Your task to perform on an android device: Clear the shopping cart on ebay.com. Search for "alienware aurora" on ebay.com, select the first entry, and add it to the cart. Image 0: 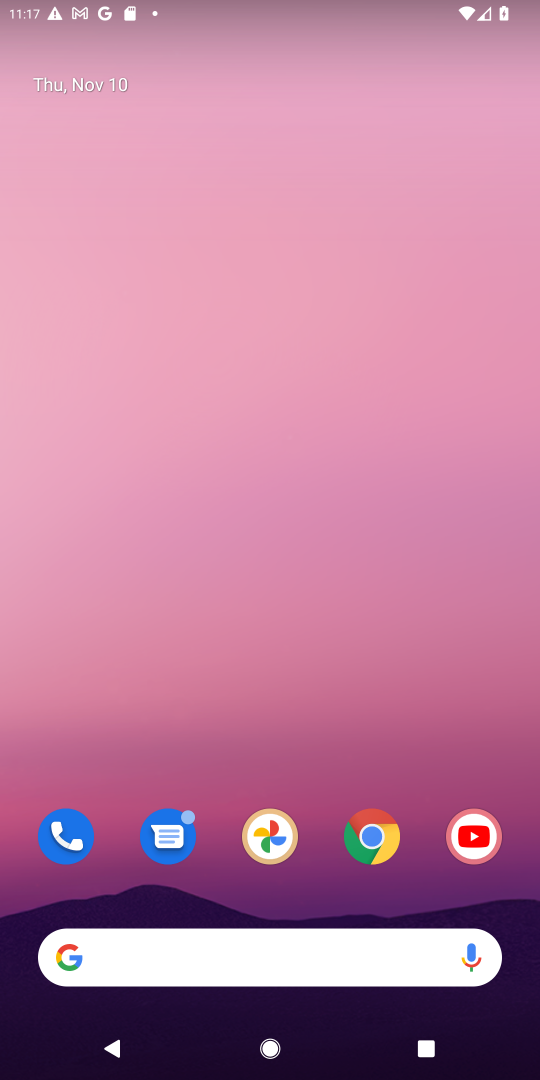
Step 0: click (183, 942)
Your task to perform on an android device: Clear the shopping cart on ebay.com. Search for "alienware aurora" on ebay.com, select the first entry, and add it to the cart. Image 1: 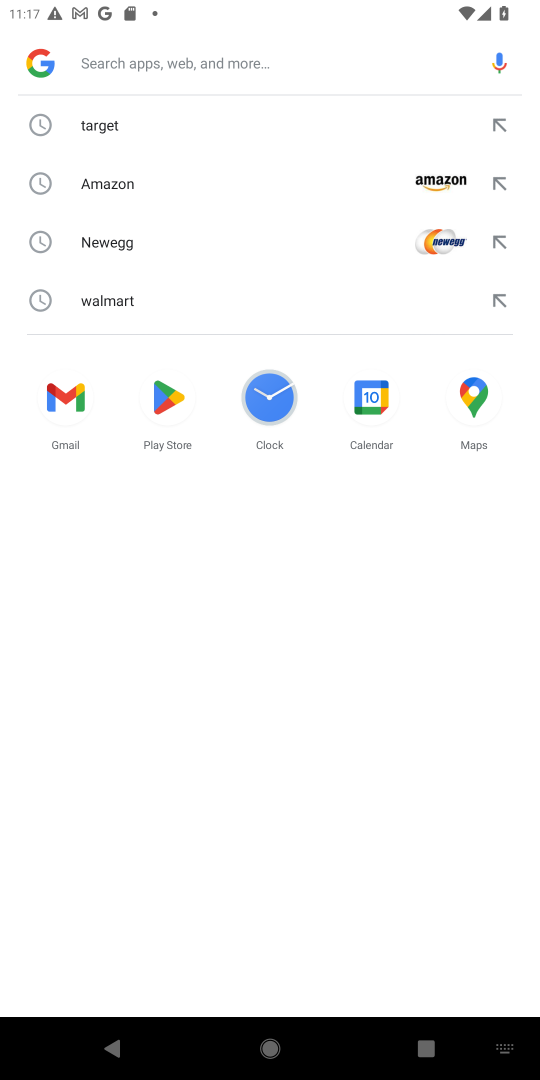
Step 1: type "ebay.com"
Your task to perform on an android device: Clear the shopping cart on ebay.com. Search for "alienware aurora" on ebay.com, select the first entry, and add it to the cart. Image 2: 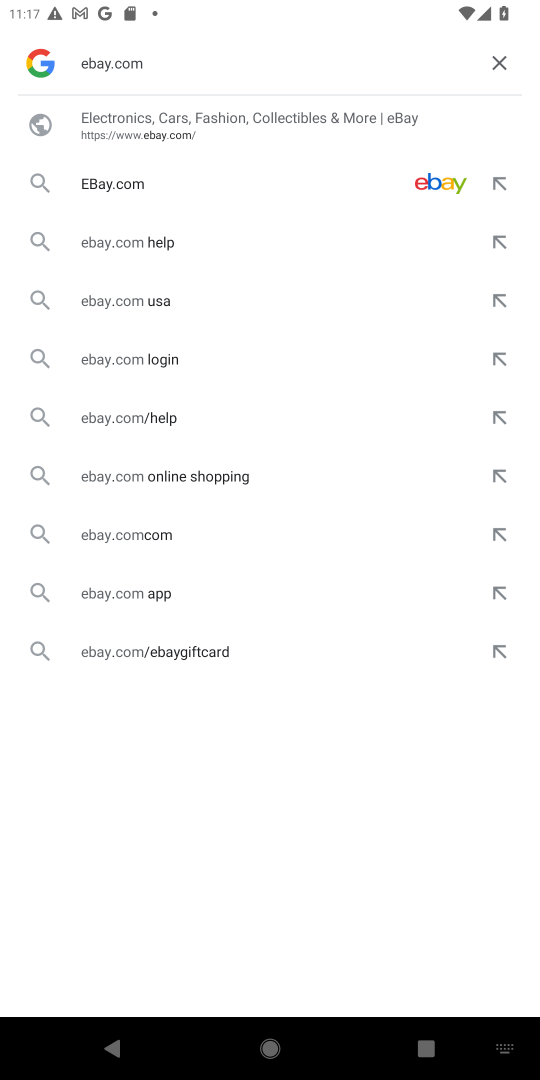
Step 2: click (109, 182)
Your task to perform on an android device: Clear the shopping cart on ebay.com. Search for "alienware aurora" on ebay.com, select the first entry, and add it to the cart. Image 3: 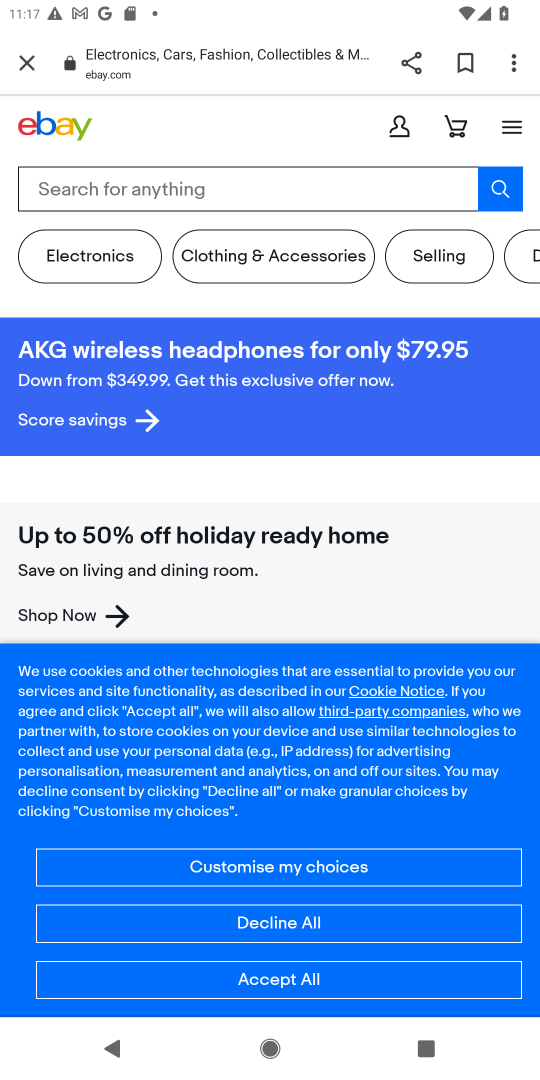
Step 3: click (162, 186)
Your task to perform on an android device: Clear the shopping cart on ebay.com. Search for "alienware aurora" on ebay.com, select the first entry, and add it to the cart. Image 4: 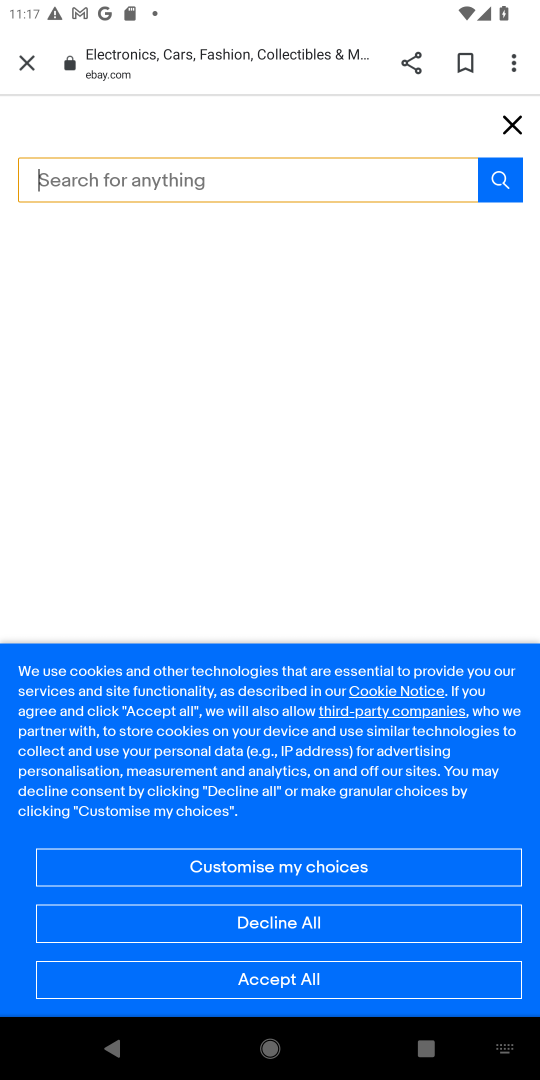
Step 4: type "alienware aurora"
Your task to perform on an android device: Clear the shopping cart on ebay.com. Search for "alienware aurora" on ebay.com, select the first entry, and add it to the cart. Image 5: 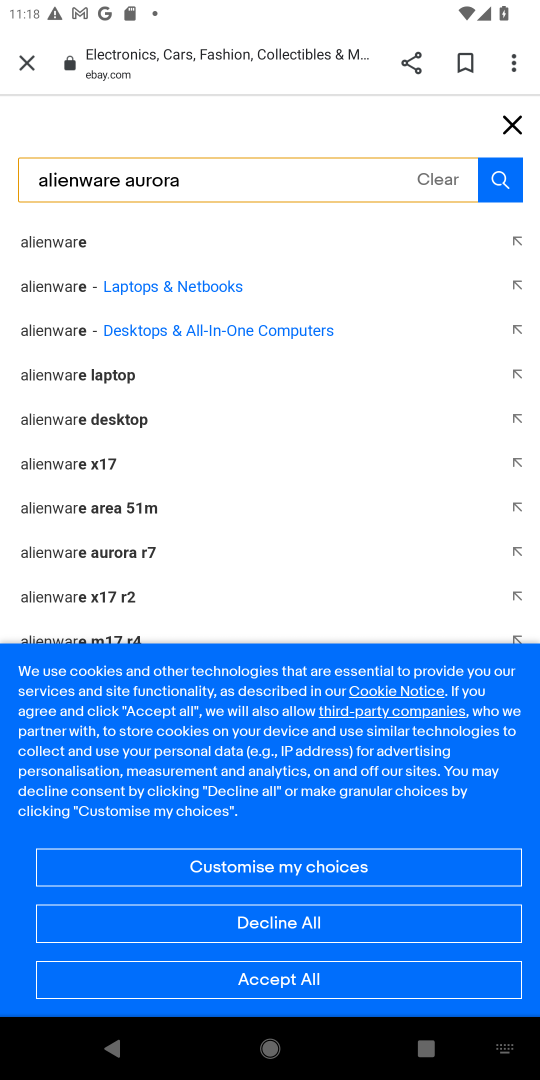
Step 5: click (62, 237)
Your task to perform on an android device: Clear the shopping cart on ebay.com. Search for "alienware aurora" on ebay.com, select the first entry, and add it to the cart. Image 6: 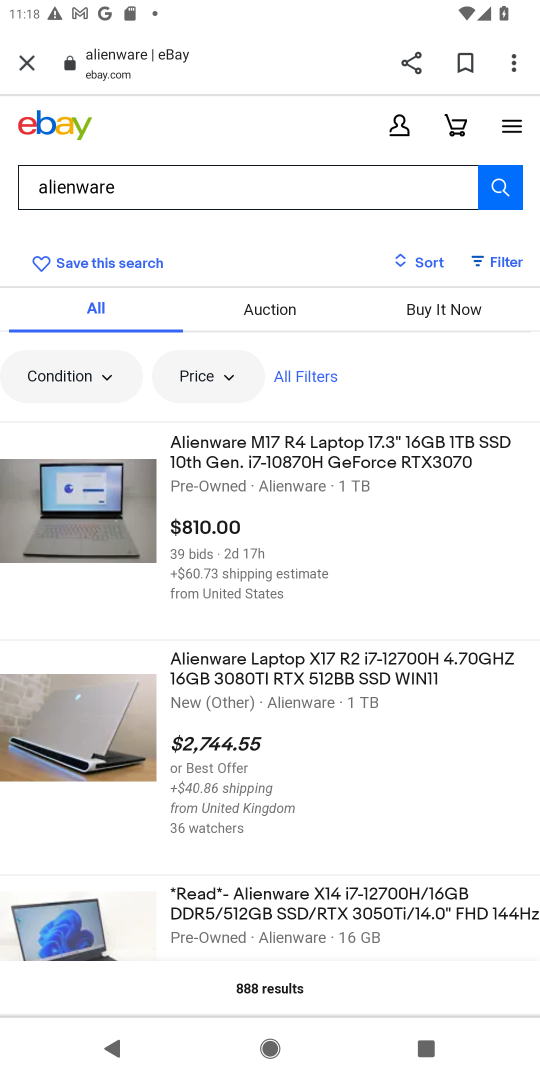
Step 6: click (245, 452)
Your task to perform on an android device: Clear the shopping cart on ebay.com. Search for "alienware aurora" on ebay.com, select the first entry, and add it to the cart. Image 7: 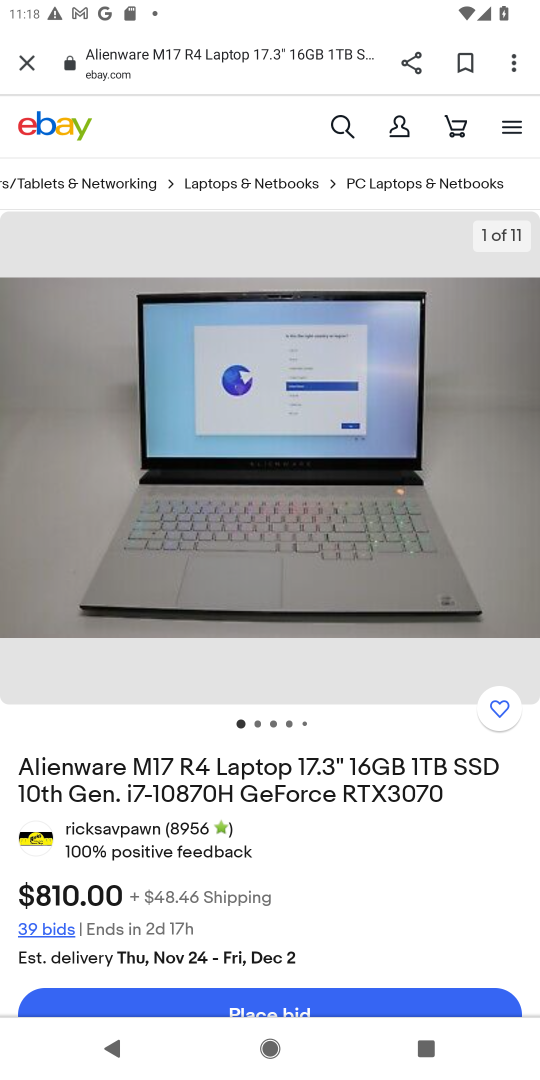
Step 7: drag from (281, 849) to (244, 562)
Your task to perform on an android device: Clear the shopping cart on ebay.com. Search for "alienware aurora" on ebay.com, select the first entry, and add it to the cart. Image 8: 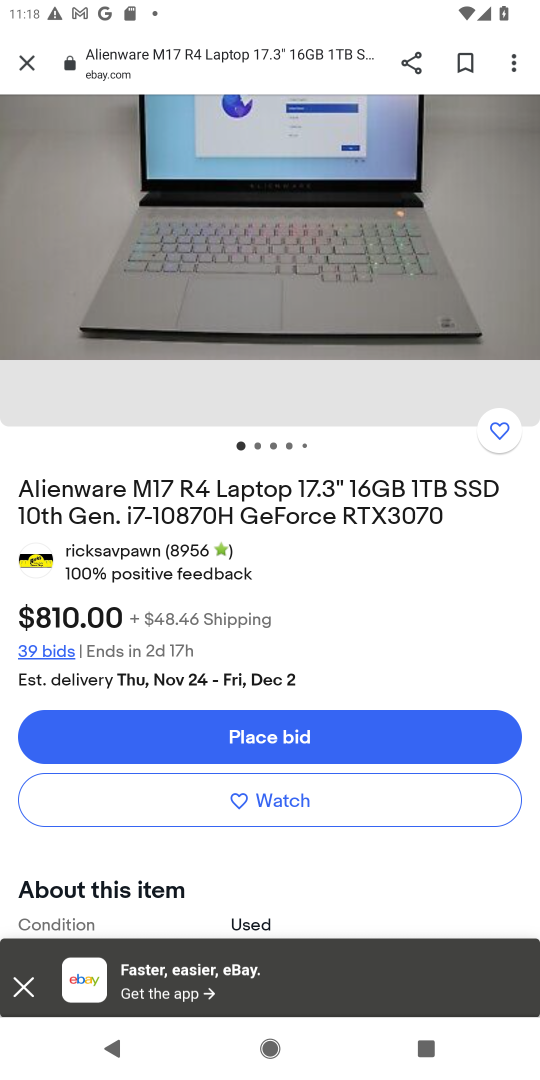
Step 8: click (265, 743)
Your task to perform on an android device: Clear the shopping cart on ebay.com. Search for "alienware aurora" on ebay.com, select the first entry, and add it to the cart. Image 9: 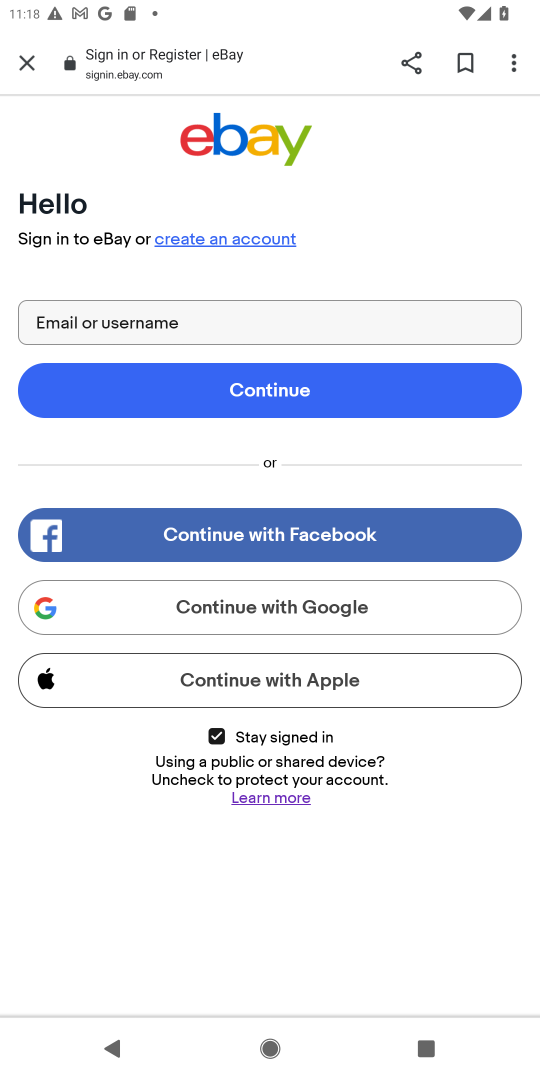
Step 9: task complete